Your task to perform on an android device: turn on javascript in the chrome app Image 0: 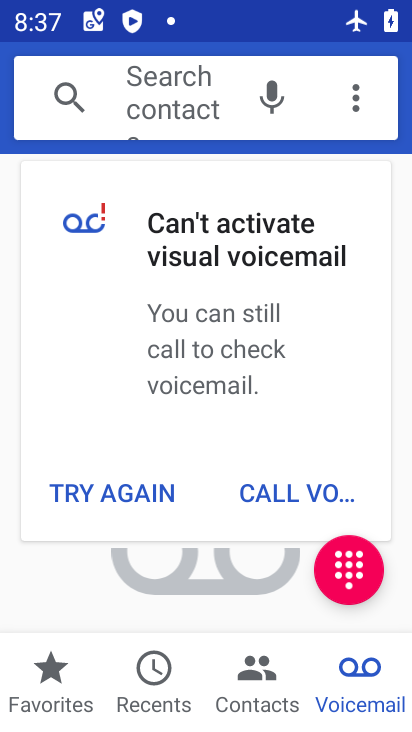
Step 0: press home button
Your task to perform on an android device: turn on javascript in the chrome app Image 1: 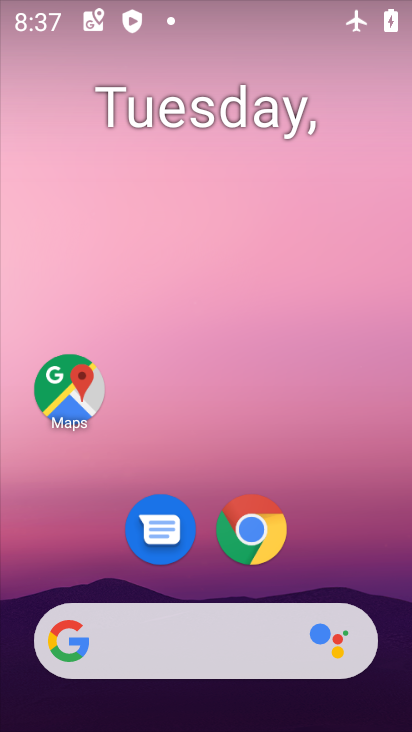
Step 1: drag from (184, 661) to (204, 67)
Your task to perform on an android device: turn on javascript in the chrome app Image 2: 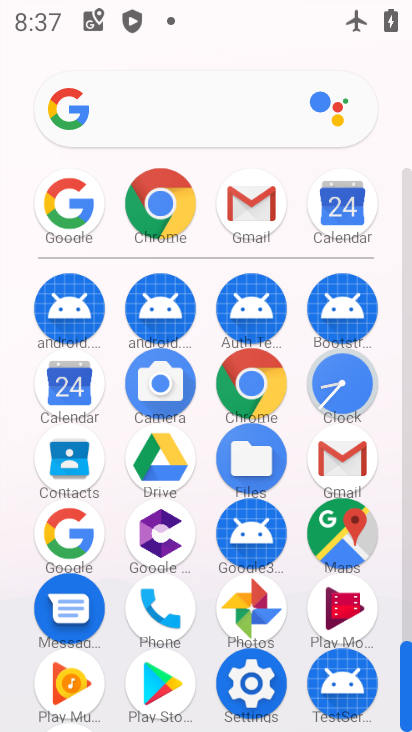
Step 2: click (259, 396)
Your task to perform on an android device: turn on javascript in the chrome app Image 3: 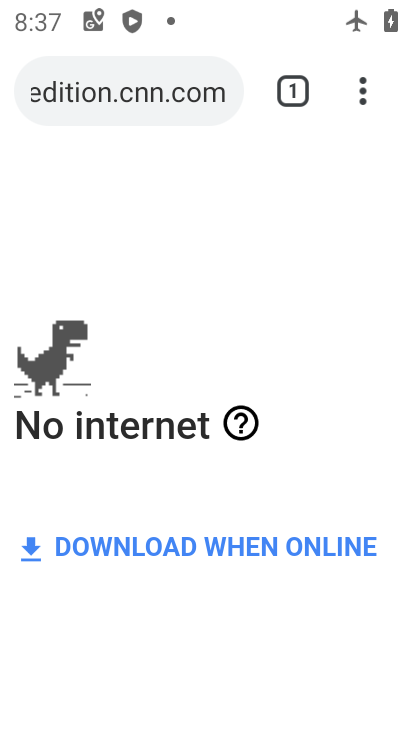
Step 3: click (355, 90)
Your task to perform on an android device: turn on javascript in the chrome app Image 4: 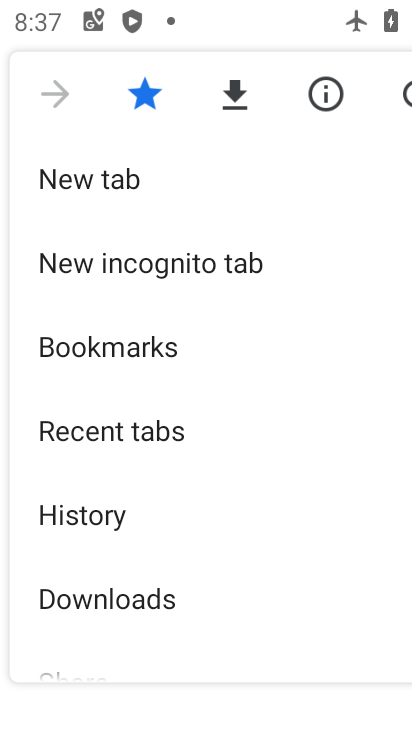
Step 4: drag from (149, 561) to (145, 185)
Your task to perform on an android device: turn on javascript in the chrome app Image 5: 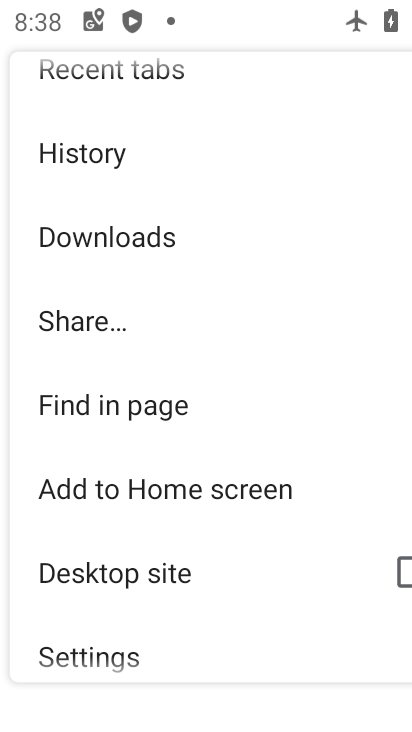
Step 5: click (109, 648)
Your task to perform on an android device: turn on javascript in the chrome app Image 6: 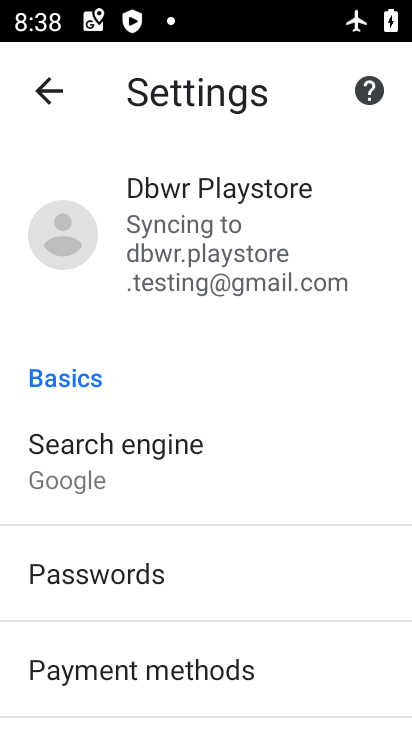
Step 6: drag from (136, 630) to (128, 206)
Your task to perform on an android device: turn on javascript in the chrome app Image 7: 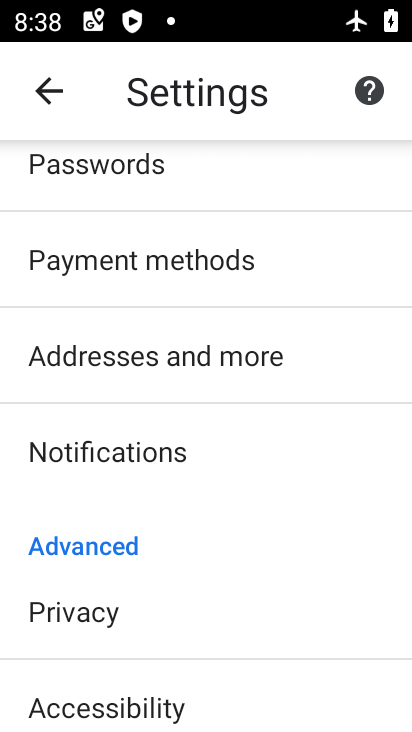
Step 7: drag from (174, 577) to (184, 288)
Your task to perform on an android device: turn on javascript in the chrome app Image 8: 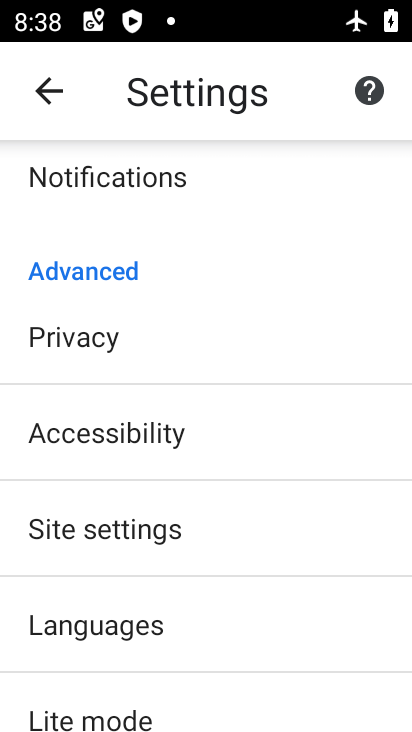
Step 8: click (135, 533)
Your task to perform on an android device: turn on javascript in the chrome app Image 9: 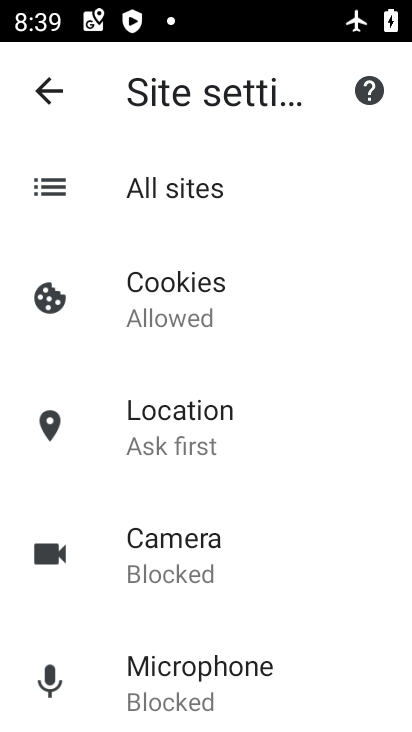
Step 9: drag from (216, 602) to (186, 244)
Your task to perform on an android device: turn on javascript in the chrome app Image 10: 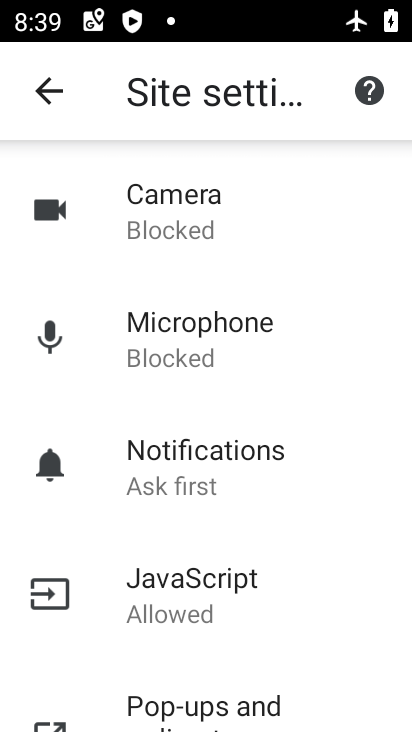
Step 10: click (159, 606)
Your task to perform on an android device: turn on javascript in the chrome app Image 11: 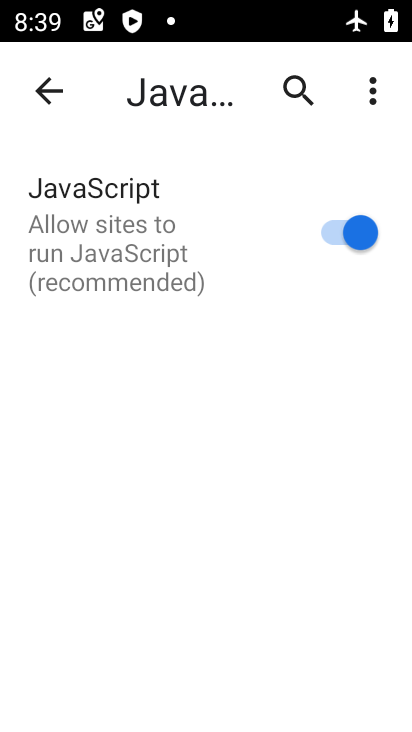
Step 11: task complete